Your task to perform on an android device: What is the recent news? Image 0: 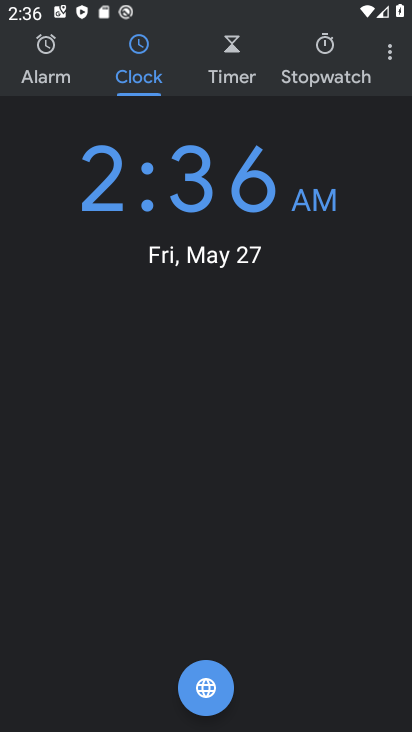
Step 0: press home button
Your task to perform on an android device: What is the recent news? Image 1: 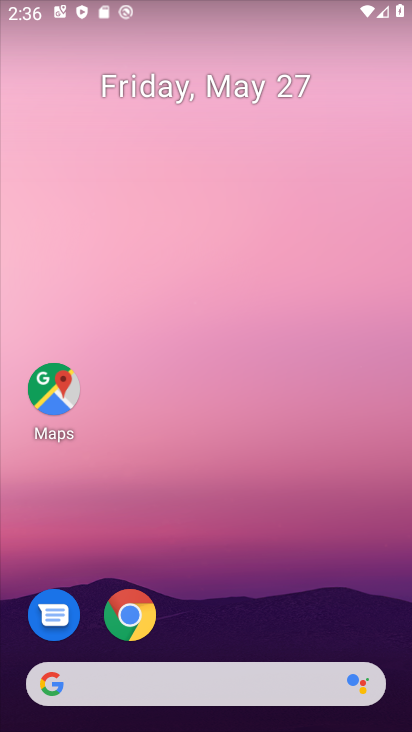
Step 1: click (180, 682)
Your task to perform on an android device: What is the recent news? Image 2: 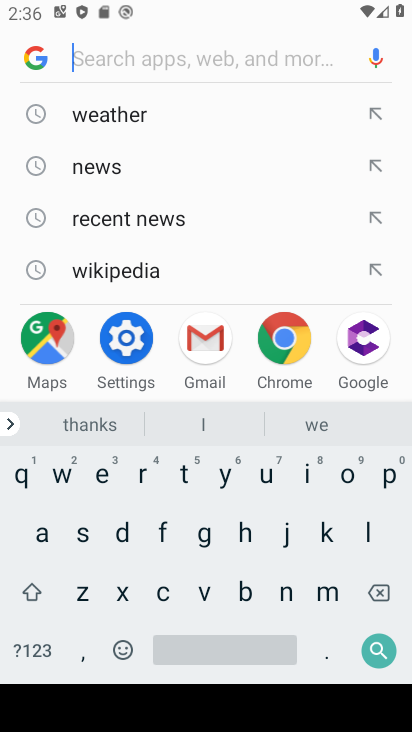
Step 2: click (136, 223)
Your task to perform on an android device: What is the recent news? Image 3: 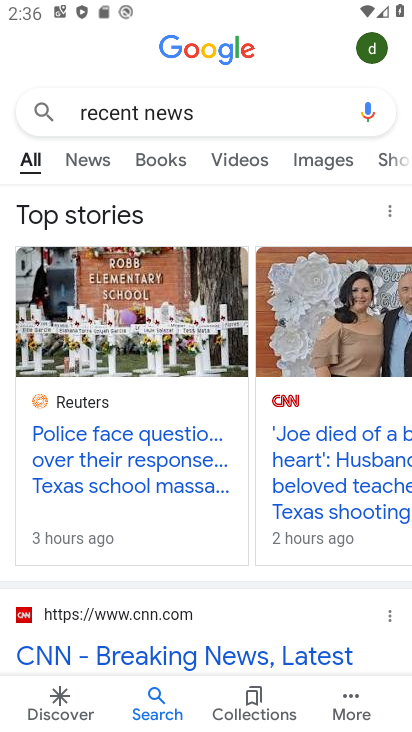
Step 3: task complete